Your task to perform on an android device: empty trash in google photos Image 0: 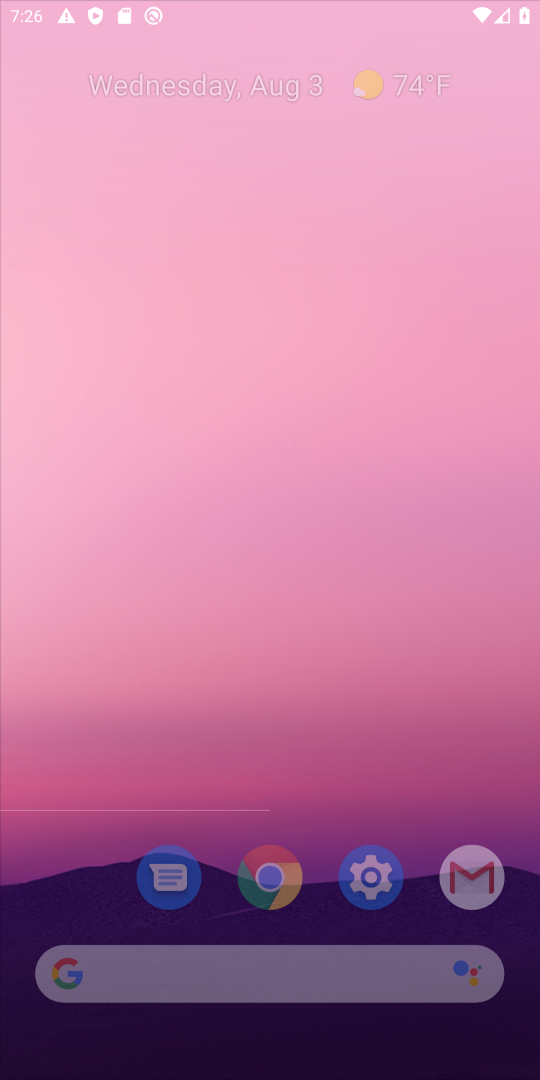
Step 0: press home button
Your task to perform on an android device: empty trash in google photos Image 1: 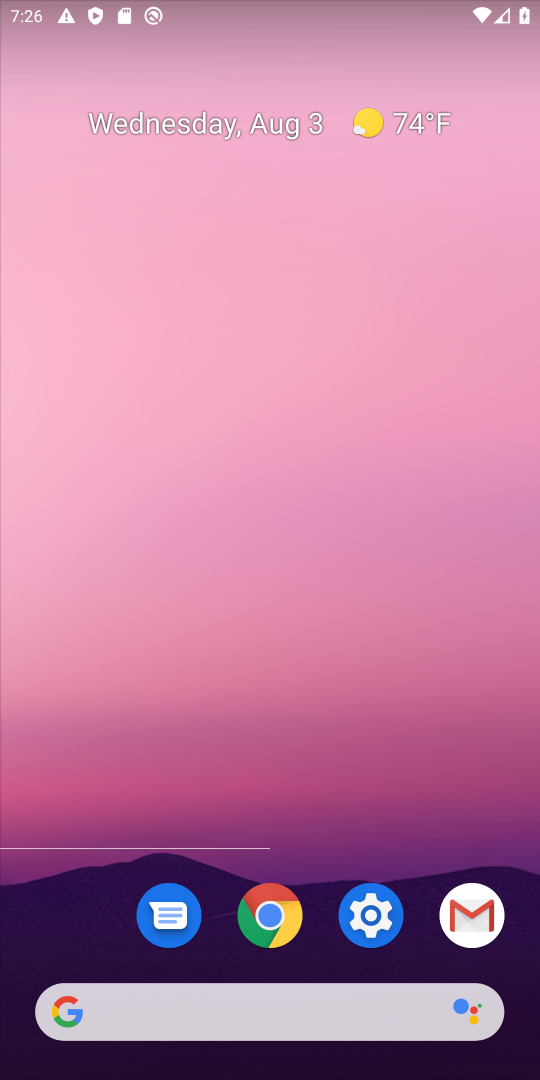
Step 1: drag from (419, 1051) to (233, 264)
Your task to perform on an android device: empty trash in google photos Image 2: 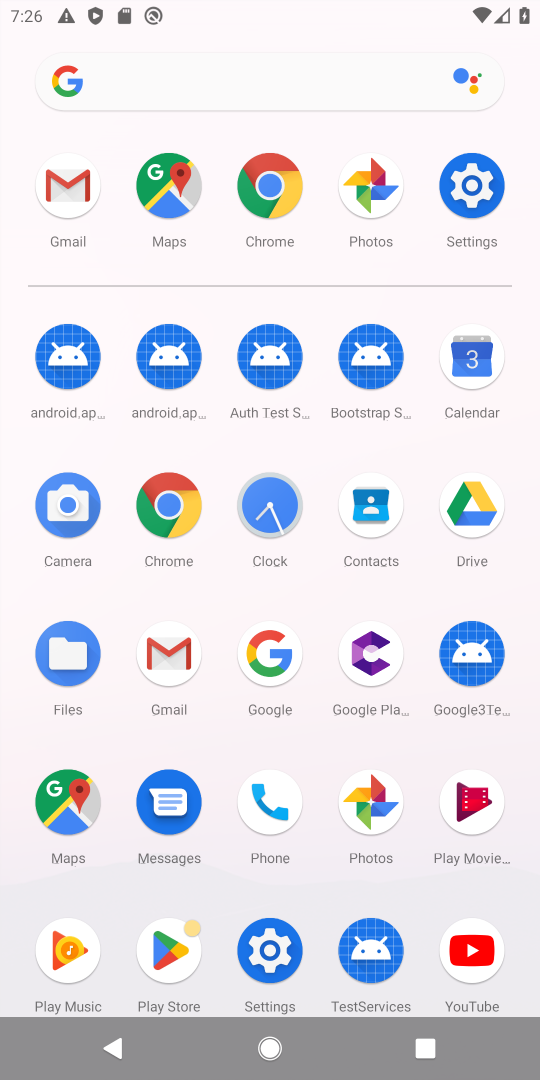
Step 2: click (382, 794)
Your task to perform on an android device: empty trash in google photos Image 3: 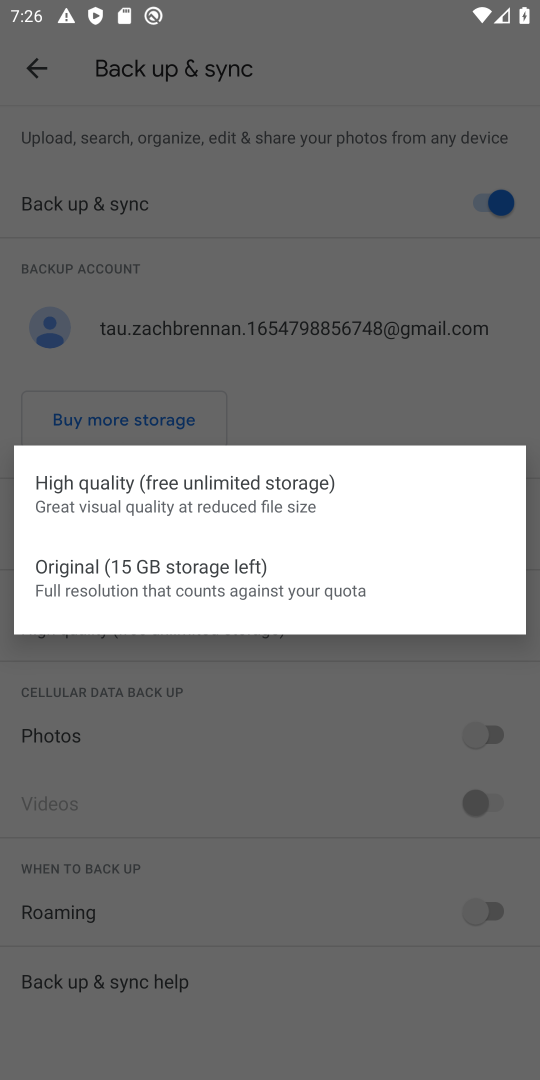
Step 3: click (331, 689)
Your task to perform on an android device: empty trash in google photos Image 4: 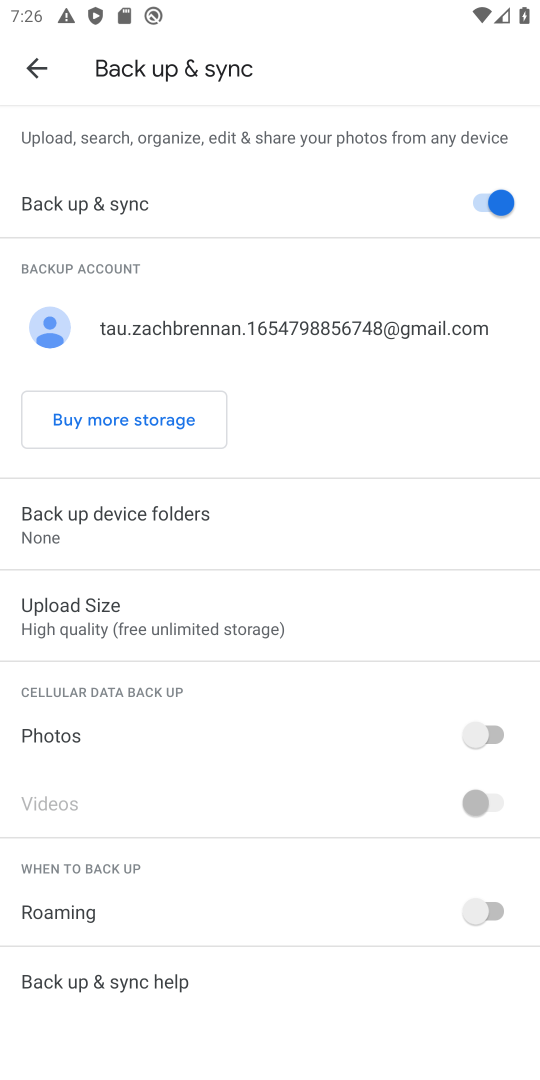
Step 4: click (39, 75)
Your task to perform on an android device: empty trash in google photos Image 5: 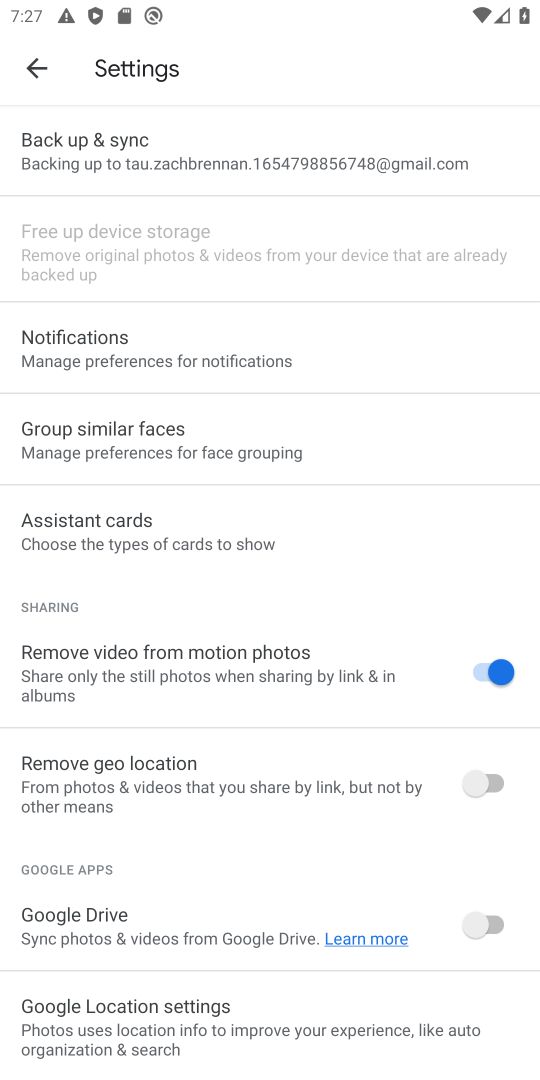
Step 5: click (39, 75)
Your task to perform on an android device: empty trash in google photos Image 6: 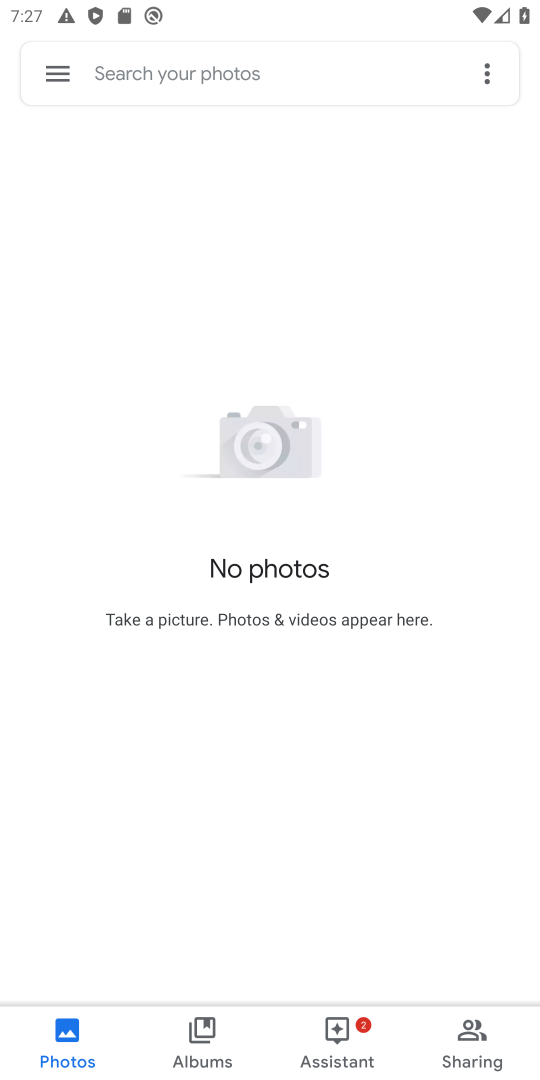
Step 6: click (61, 65)
Your task to perform on an android device: empty trash in google photos Image 7: 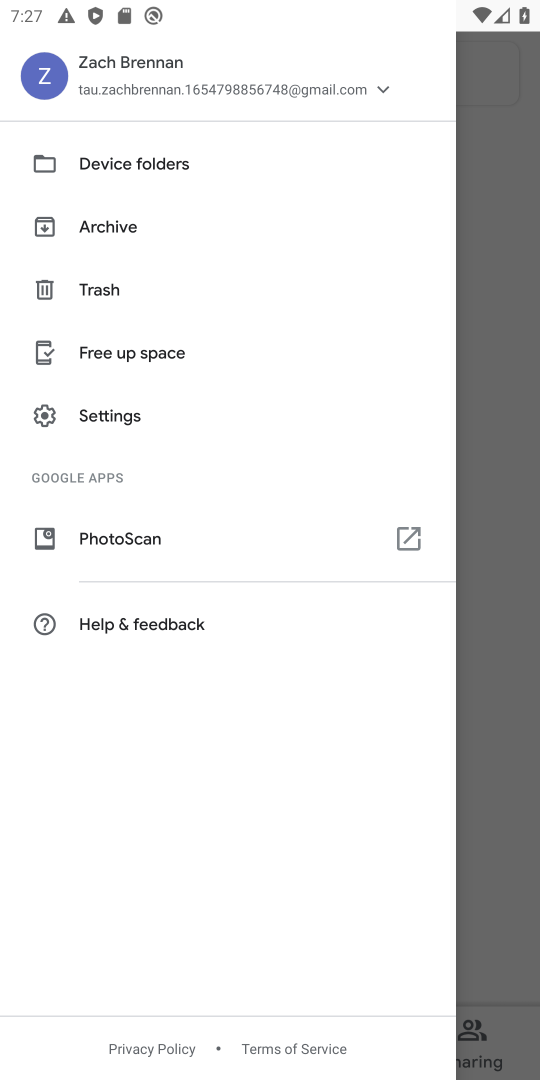
Step 7: click (112, 284)
Your task to perform on an android device: empty trash in google photos Image 8: 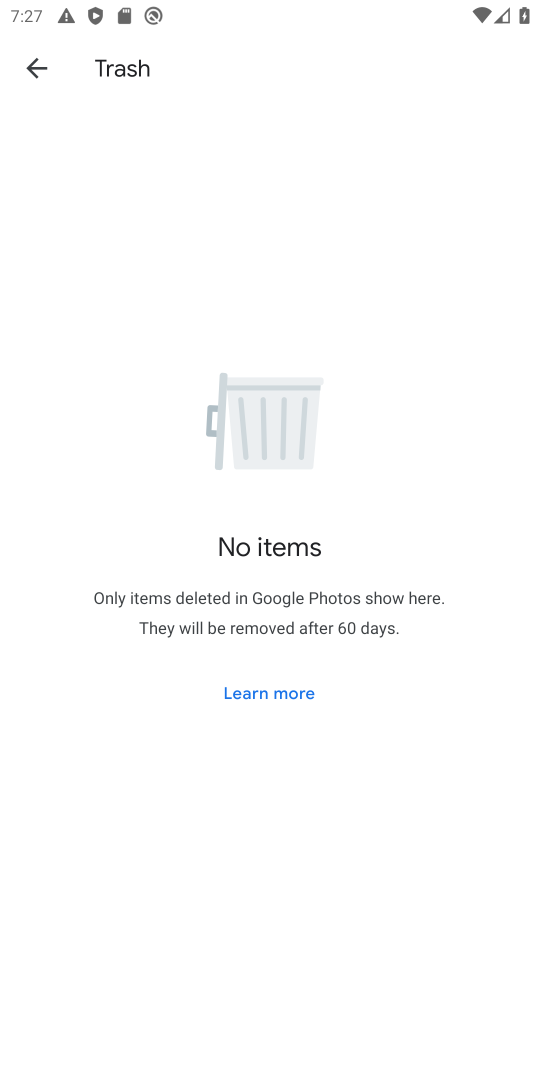
Step 8: task complete